Your task to perform on an android device: snooze an email in the gmail app Image 0: 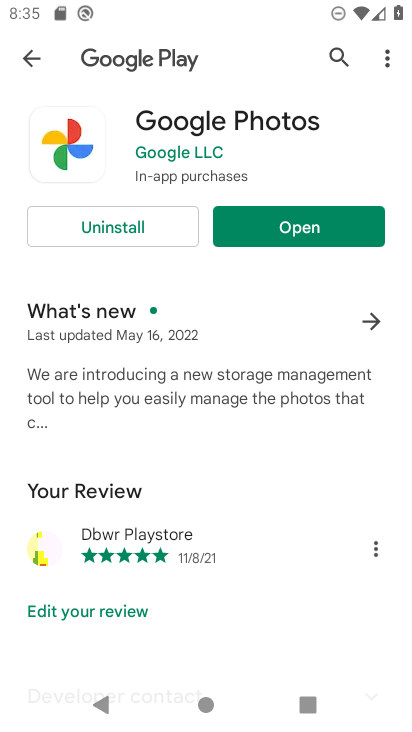
Step 0: press home button
Your task to perform on an android device: snooze an email in the gmail app Image 1: 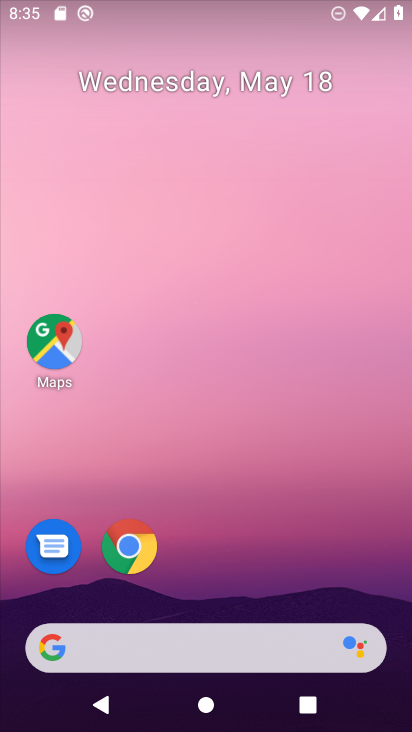
Step 1: drag from (265, 665) to (252, 310)
Your task to perform on an android device: snooze an email in the gmail app Image 2: 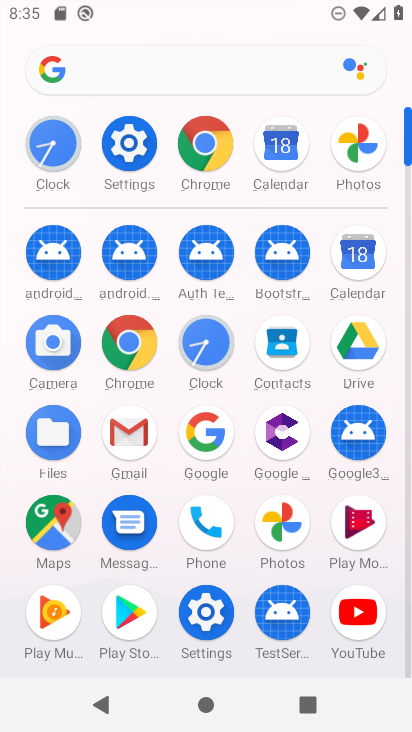
Step 2: click (130, 436)
Your task to perform on an android device: snooze an email in the gmail app Image 3: 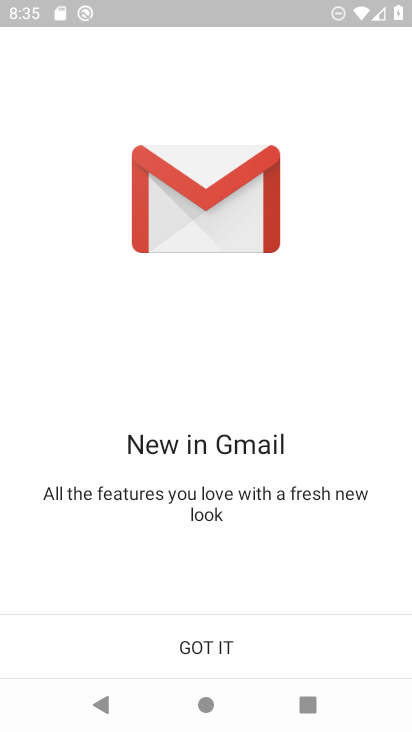
Step 3: click (148, 633)
Your task to perform on an android device: snooze an email in the gmail app Image 4: 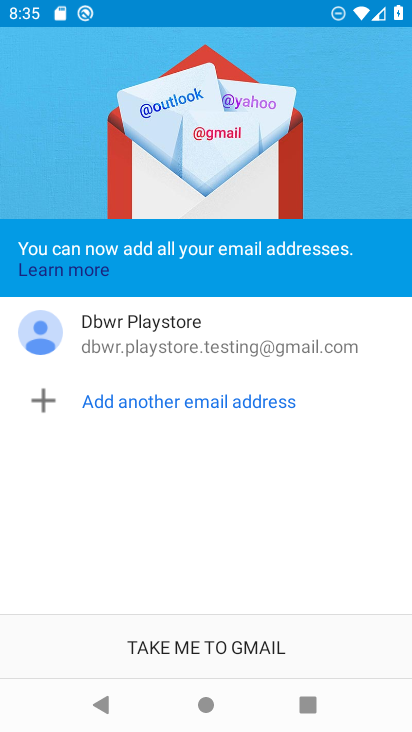
Step 4: click (209, 639)
Your task to perform on an android device: snooze an email in the gmail app Image 5: 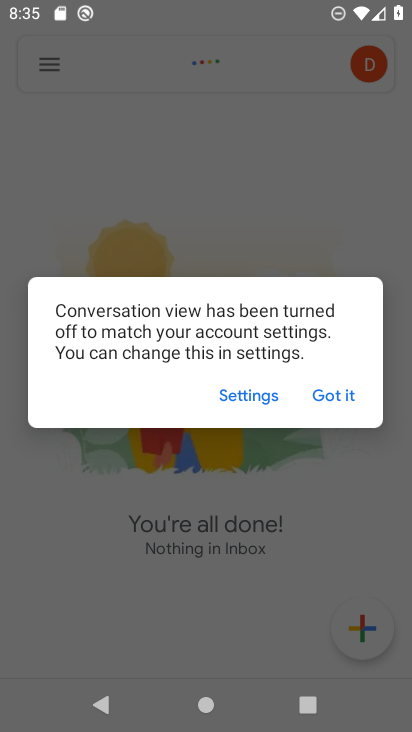
Step 5: click (326, 375)
Your task to perform on an android device: snooze an email in the gmail app Image 6: 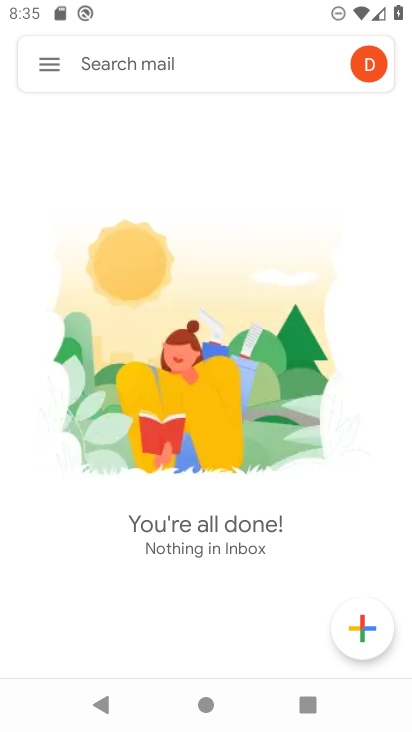
Step 6: click (45, 66)
Your task to perform on an android device: snooze an email in the gmail app Image 7: 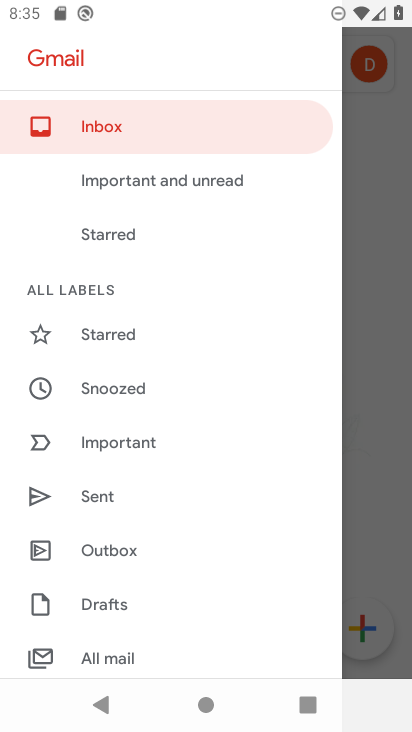
Step 7: click (101, 390)
Your task to perform on an android device: snooze an email in the gmail app Image 8: 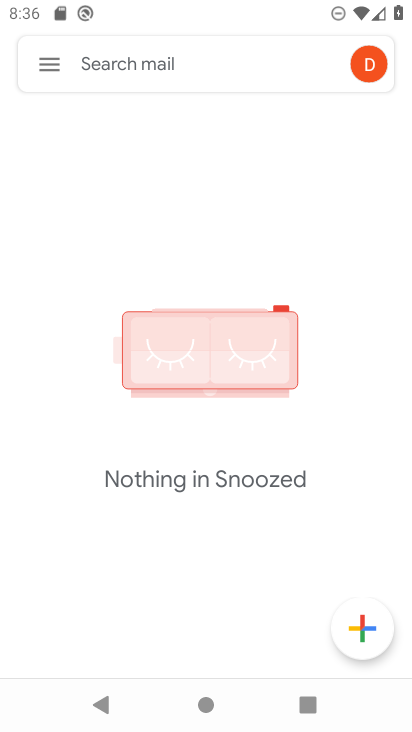
Step 8: task complete